Your task to perform on an android device: turn pop-ups on in chrome Image 0: 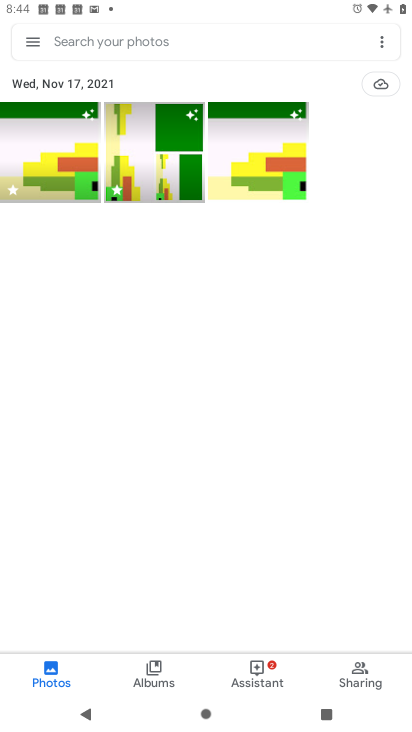
Step 0: press home button
Your task to perform on an android device: turn pop-ups on in chrome Image 1: 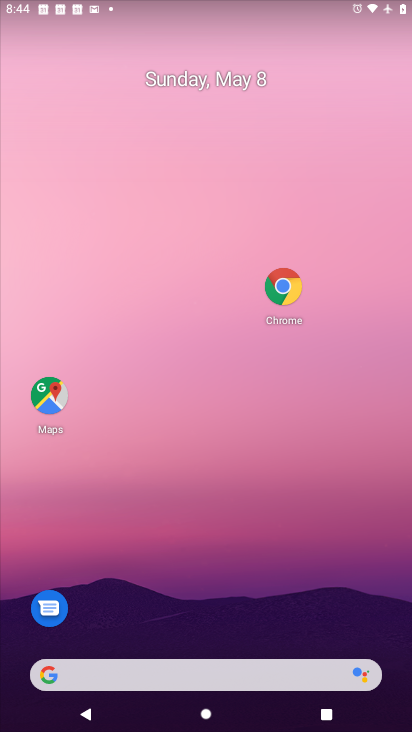
Step 1: click (284, 292)
Your task to perform on an android device: turn pop-ups on in chrome Image 2: 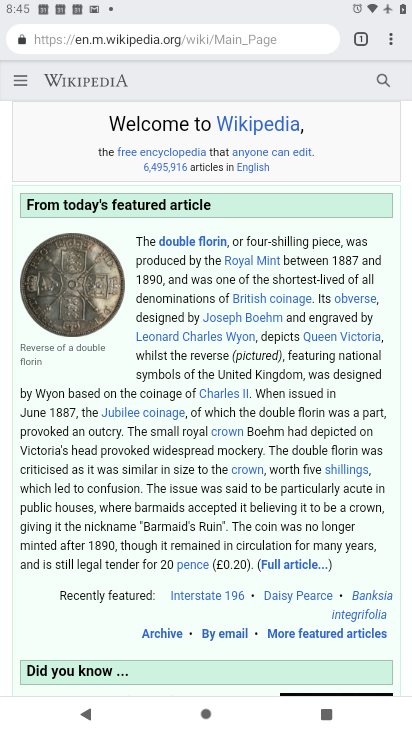
Step 2: drag from (390, 42) to (274, 472)
Your task to perform on an android device: turn pop-ups on in chrome Image 3: 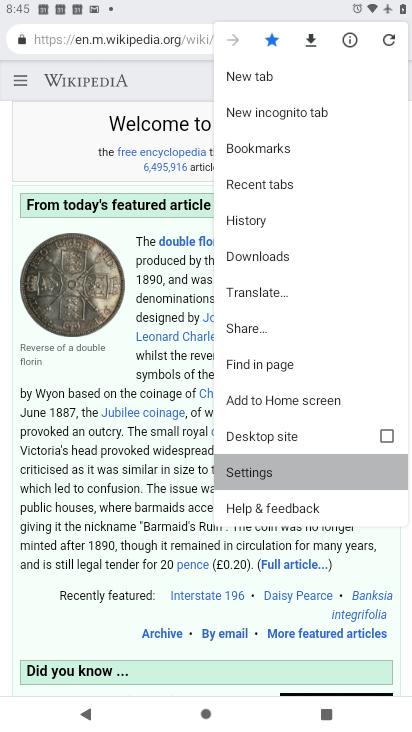
Step 3: click (274, 473)
Your task to perform on an android device: turn pop-ups on in chrome Image 4: 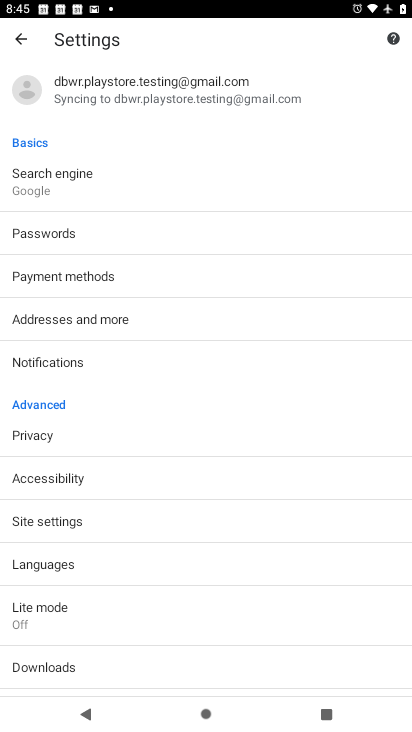
Step 4: click (40, 517)
Your task to perform on an android device: turn pop-ups on in chrome Image 5: 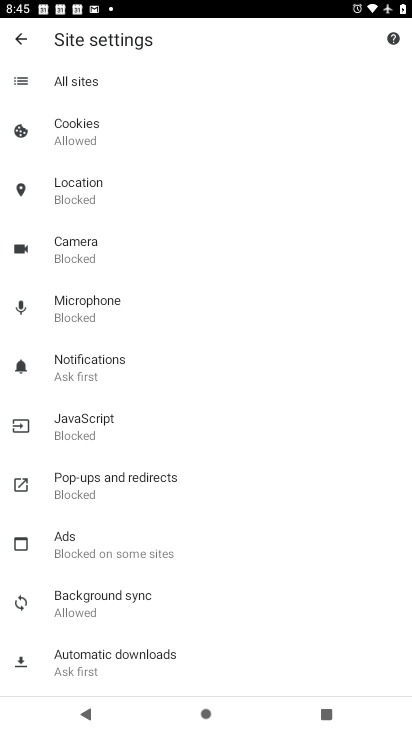
Step 5: click (84, 484)
Your task to perform on an android device: turn pop-ups on in chrome Image 6: 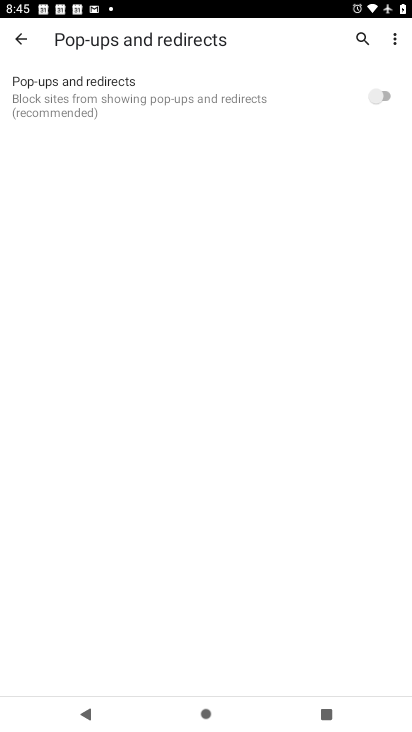
Step 6: click (383, 93)
Your task to perform on an android device: turn pop-ups on in chrome Image 7: 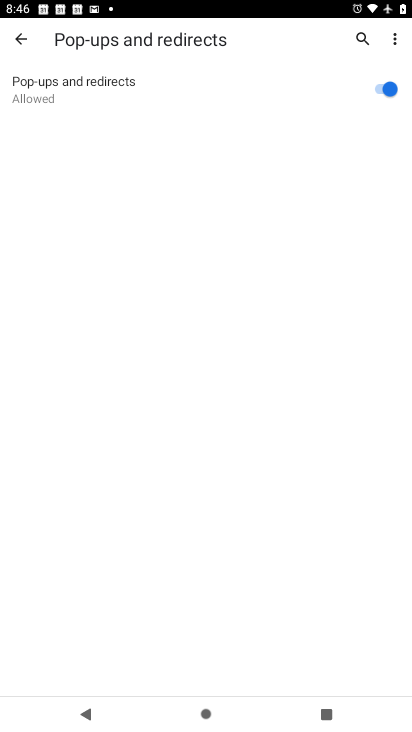
Step 7: task complete